Your task to perform on an android device: turn off data saver in the chrome app Image 0: 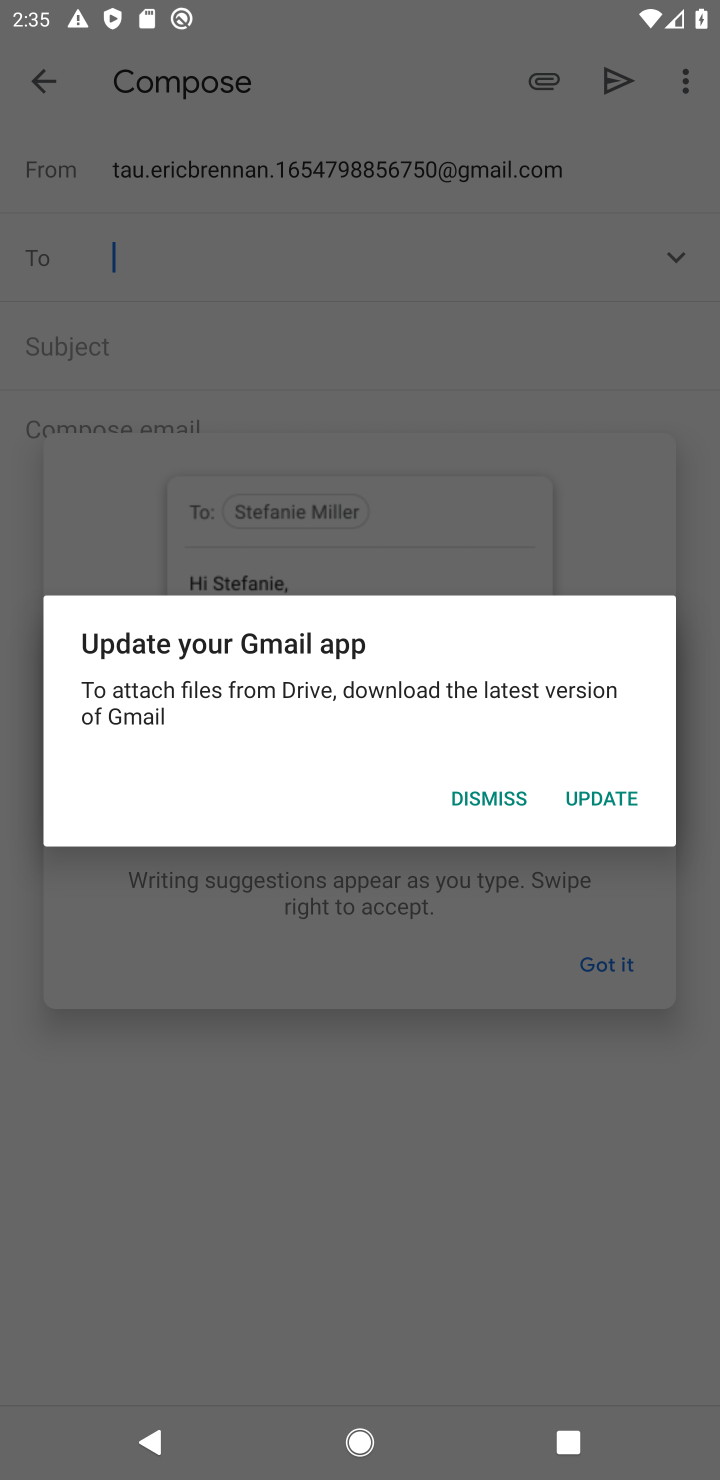
Step 0: press home button
Your task to perform on an android device: turn off data saver in the chrome app Image 1: 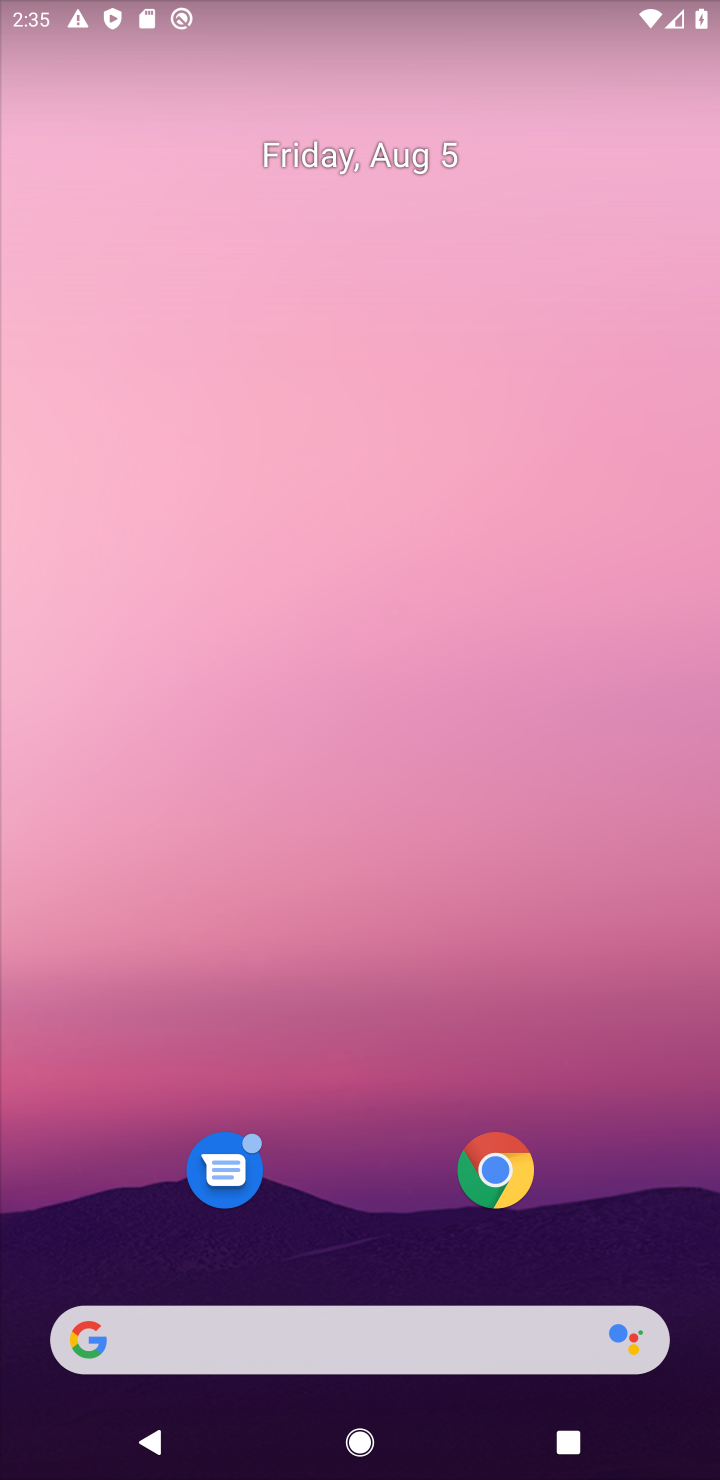
Step 1: click (507, 1211)
Your task to perform on an android device: turn off data saver in the chrome app Image 2: 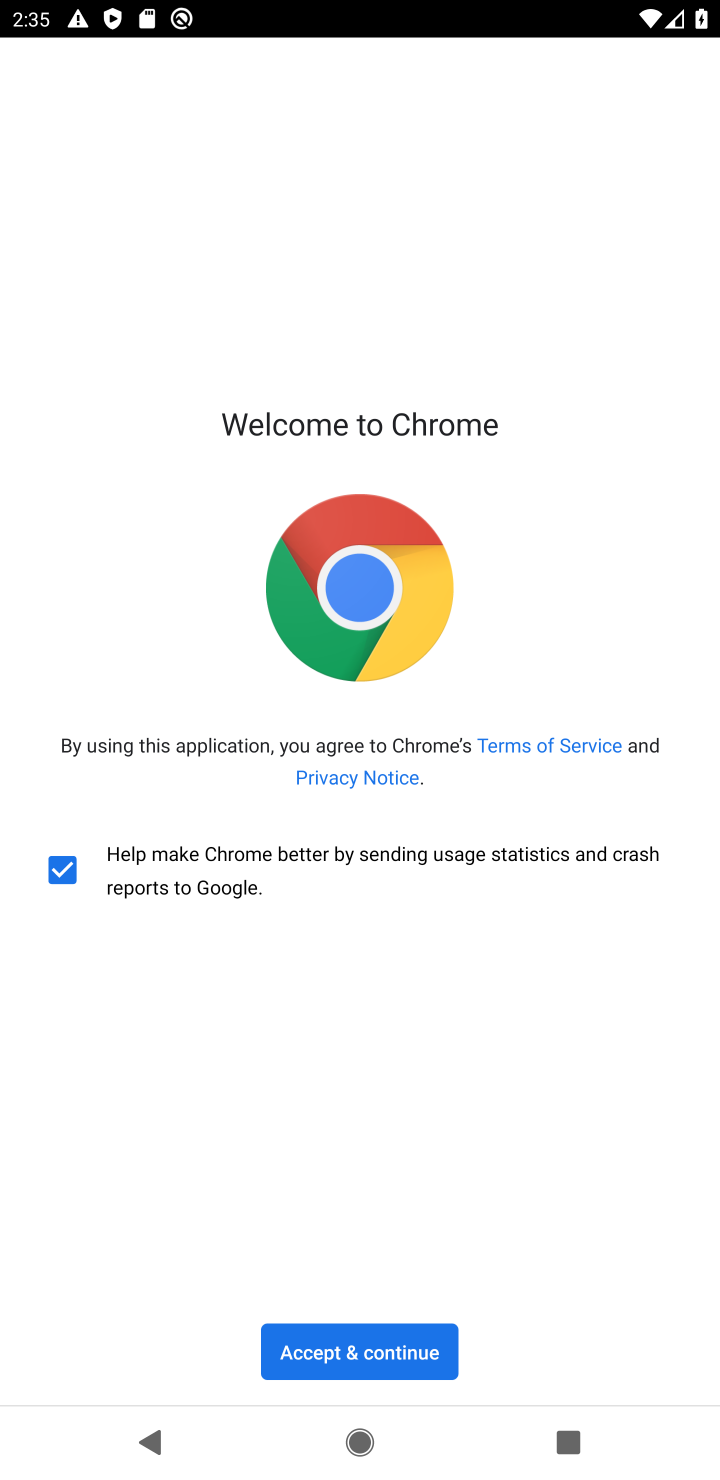
Step 2: click (314, 1352)
Your task to perform on an android device: turn off data saver in the chrome app Image 3: 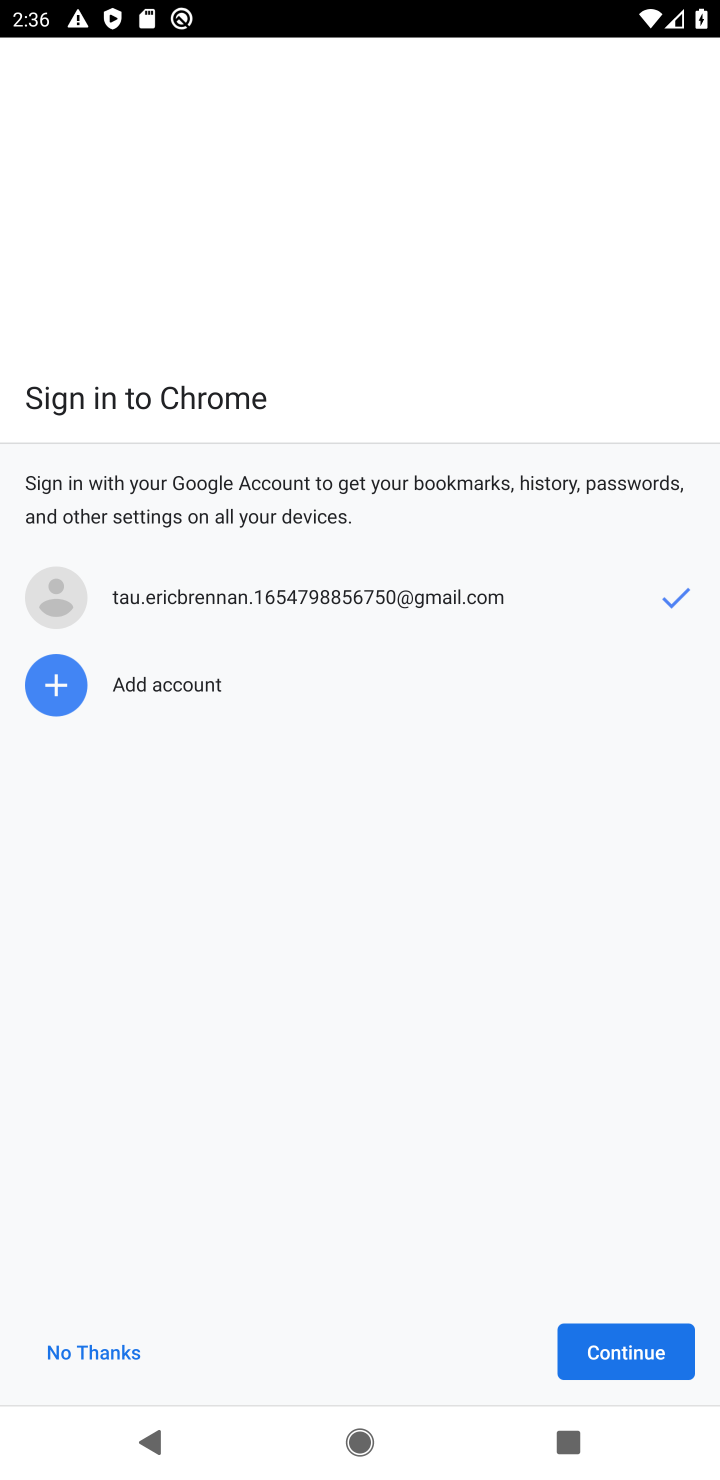
Step 3: click (611, 1363)
Your task to perform on an android device: turn off data saver in the chrome app Image 4: 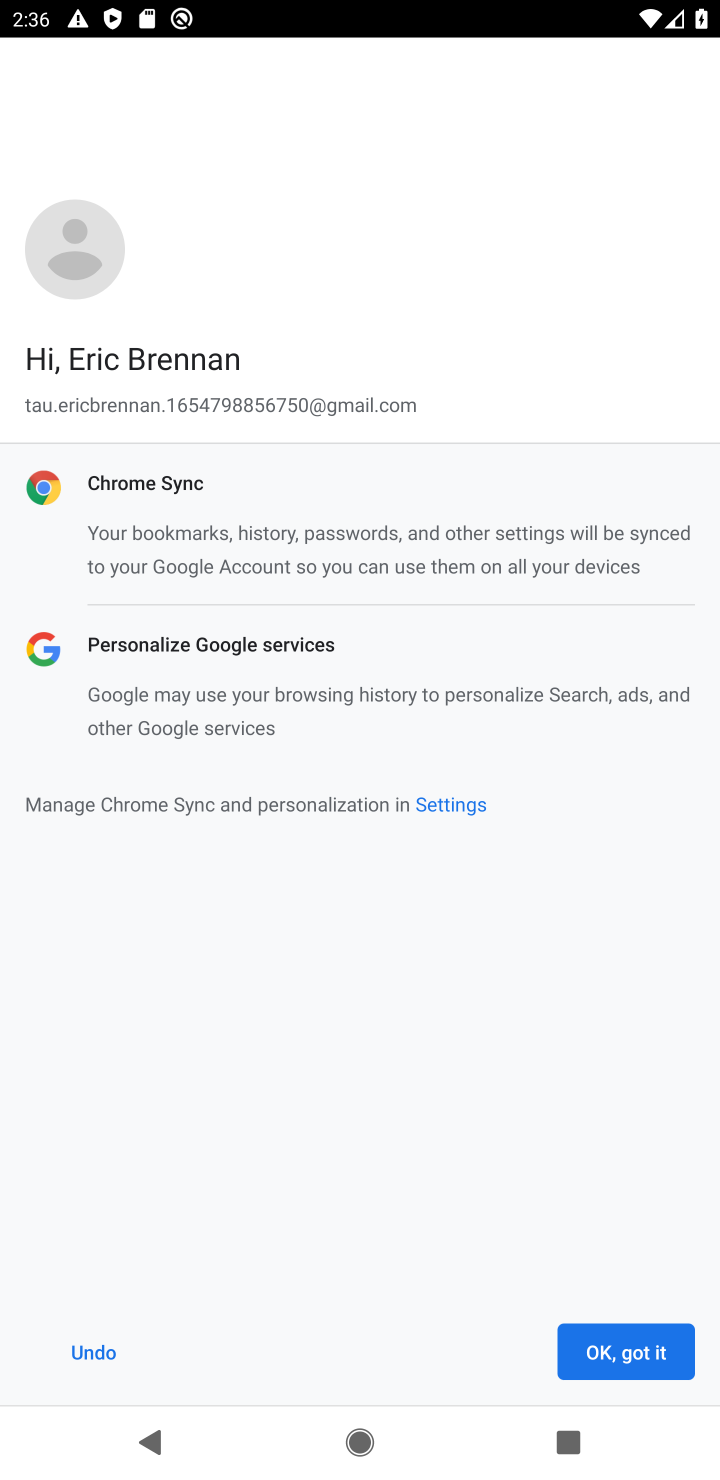
Step 4: click (587, 1357)
Your task to perform on an android device: turn off data saver in the chrome app Image 5: 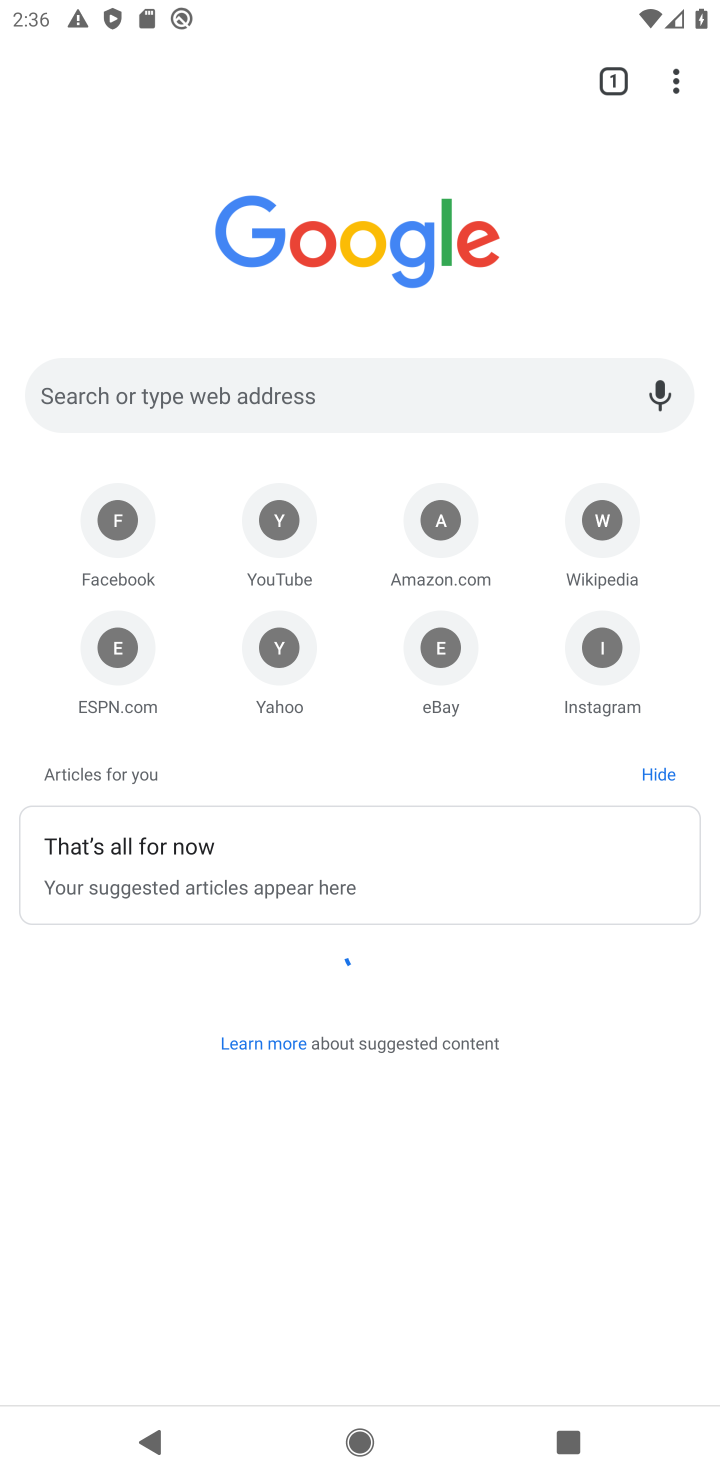
Step 5: task complete